Your task to perform on an android device: find which apps use the phone's location Image 0: 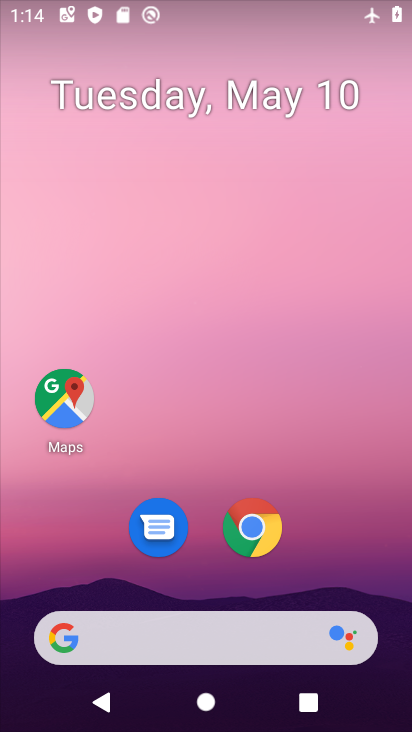
Step 0: drag from (192, 595) to (206, 290)
Your task to perform on an android device: find which apps use the phone's location Image 1: 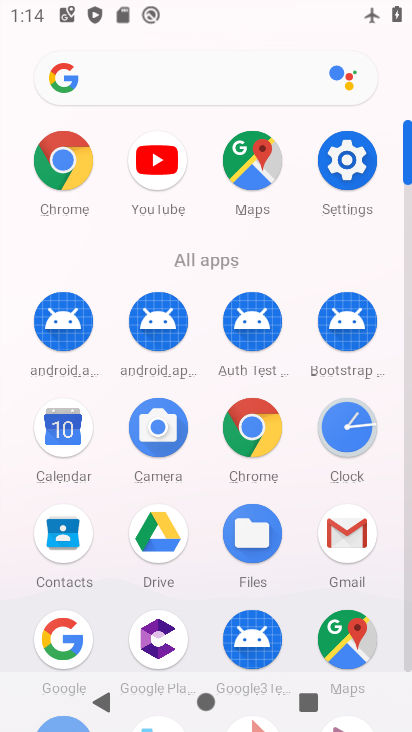
Step 1: drag from (204, 610) to (199, 277)
Your task to perform on an android device: find which apps use the phone's location Image 2: 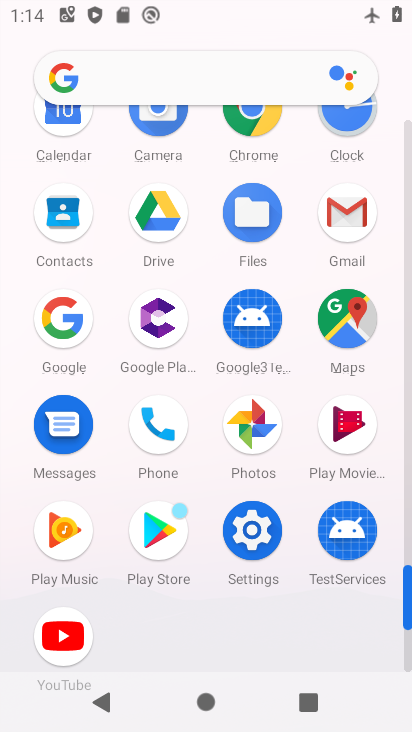
Step 2: click (252, 529)
Your task to perform on an android device: find which apps use the phone's location Image 3: 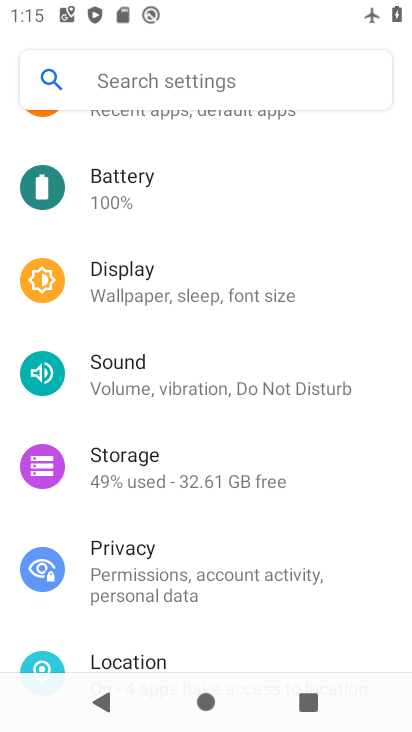
Step 3: drag from (203, 601) to (168, 373)
Your task to perform on an android device: find which apps use the phone's location Image 4: 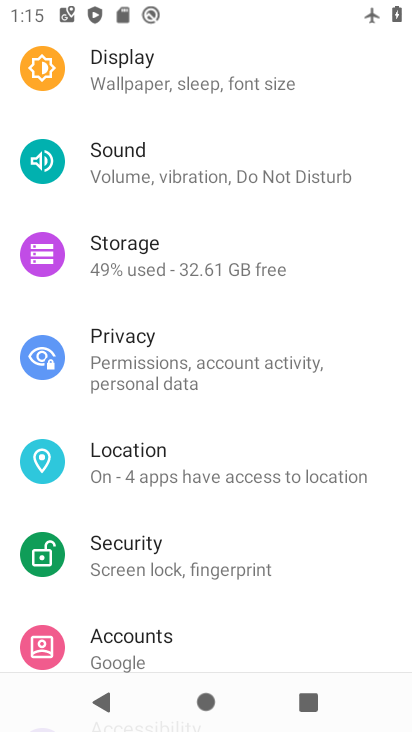
Step 4: click (152, 464)
Your task to perform on an android device: find which apps use the phone's location Image 5: 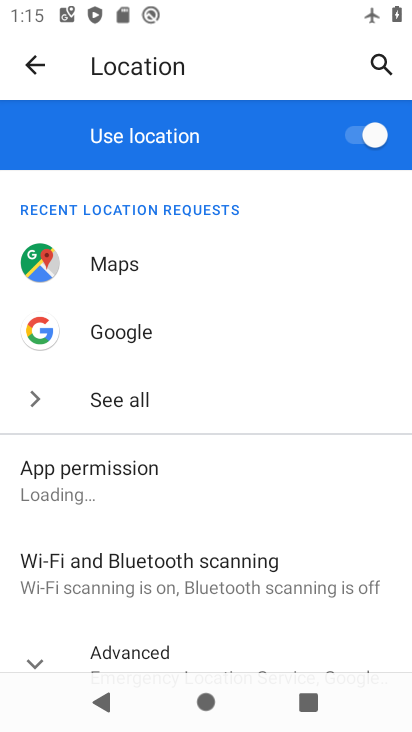
Step 5: click (126, 402)
Your task to perform on an android device: find which apps use the phone's location Image 6: 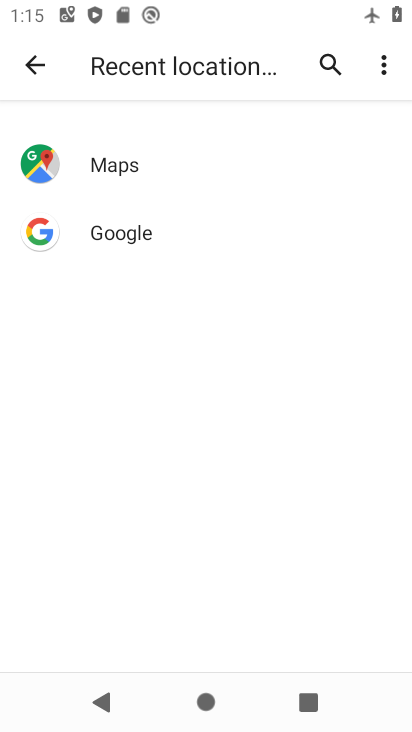
Step 6: task complete